Your task to perform on an android device: What's the weather going to be this weekend? Image 0: 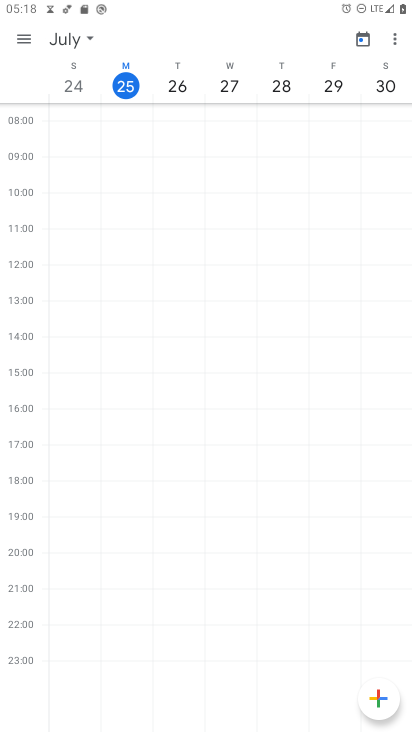
Step 0: press home button
Your task to perform on an android device: What's the weather going to be this weekend? Image 1: 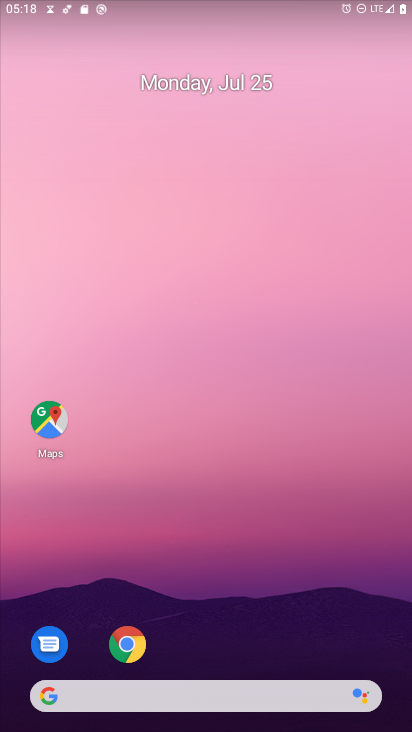
Step 1: click (47, 700)
Your task to perform on an android device: What's the weather going to be this weekend? Image 2: 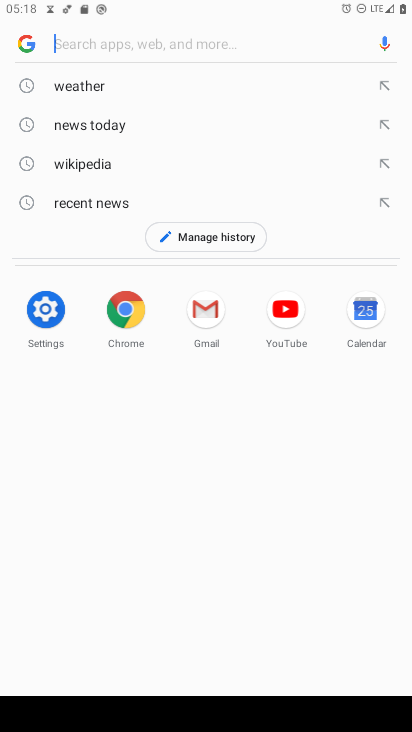
Step 2: type "What's the weather going to be this weekend?"
Your task to perform on an android device: What's the weather going to be this weekend? Image 3: 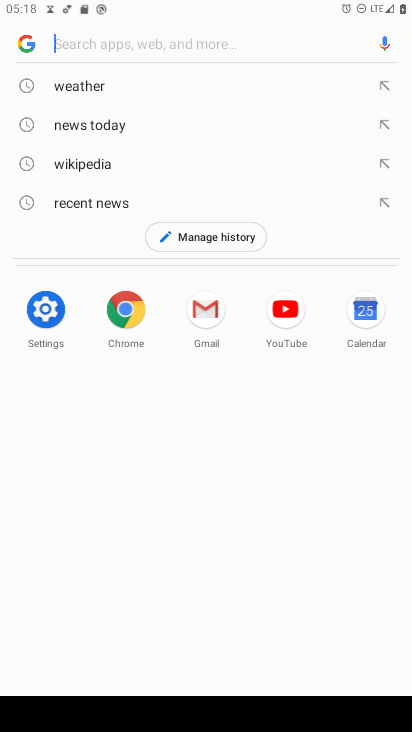
Step 3: click (169, 42)
Your task to perform on an android device: What's the weather going to be this weekend? Image 4: 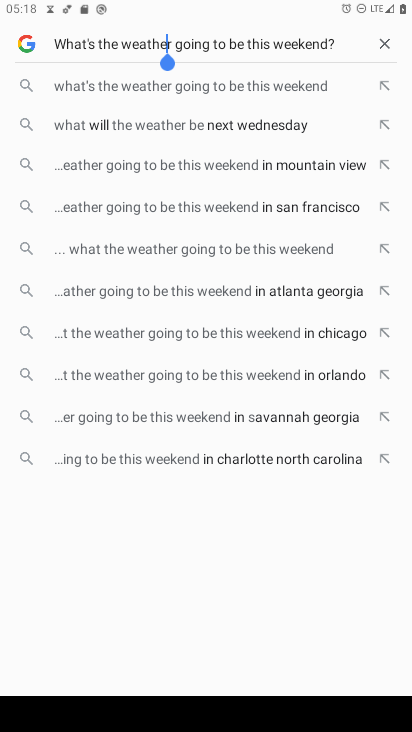
Step 4: press enter
Your task to perform on an android device: What's the weather going to be this weekend? Image 5: 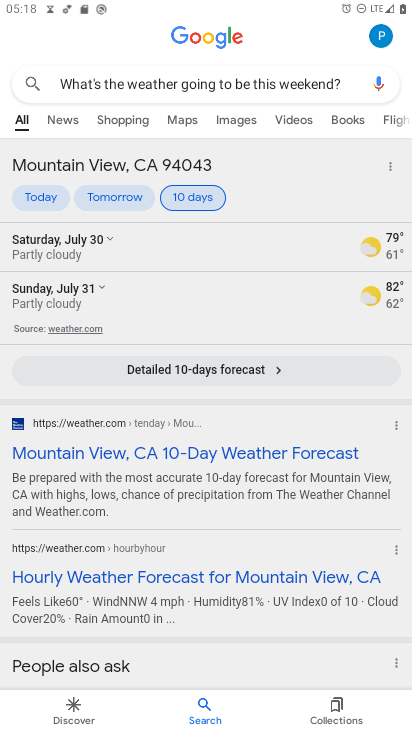
Step 5: task complete